Your task to perform on an android device: turn off sleep mode Image 0: 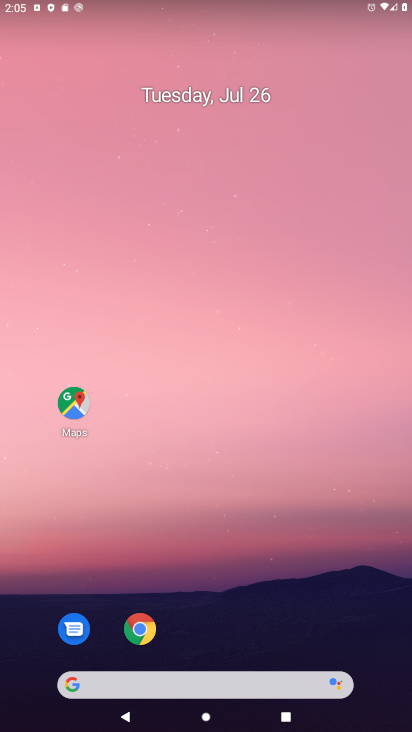
Step 0: drag from (380, 660) to (306, 185)
Your task to perform on an android device: turn off sleep mode Image 1: 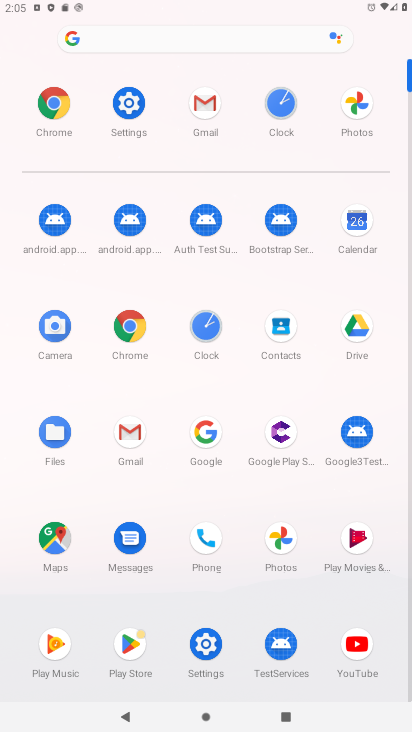
Step 1: click (206, 645)
Your task to perform on an android device: turn off sleep mode Image 2: 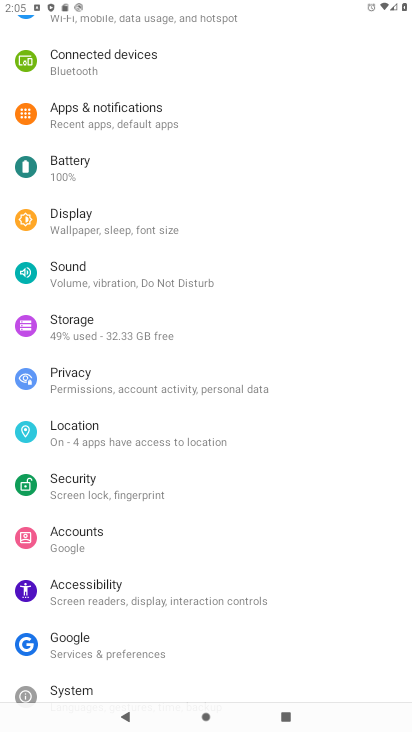
Step 2: click (86, 219)
Your task to perform on an android device: turn off sleep mode Image 3: 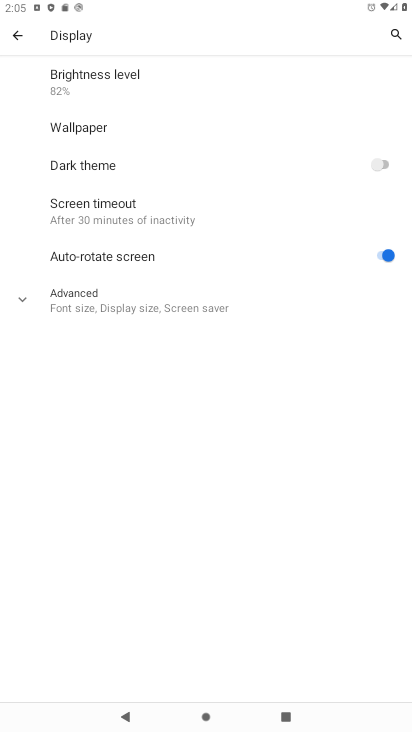
Step 3: click (24, 301)
Your task to perform on an android device: turn off sleep mode Image 4: 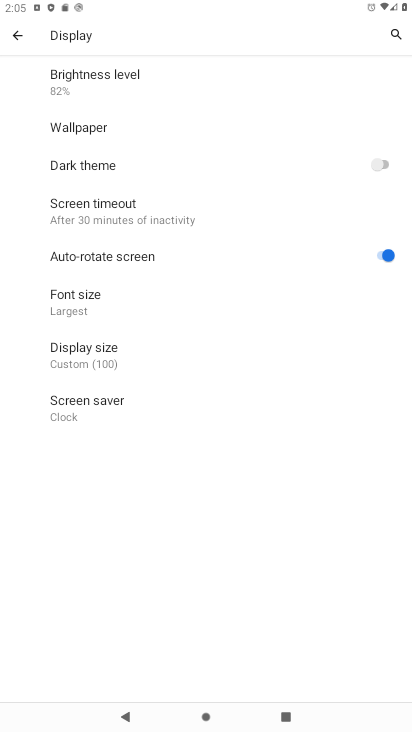
Step 4: task complete